Your task to perform on an android device: Open wifi settings Image 0: 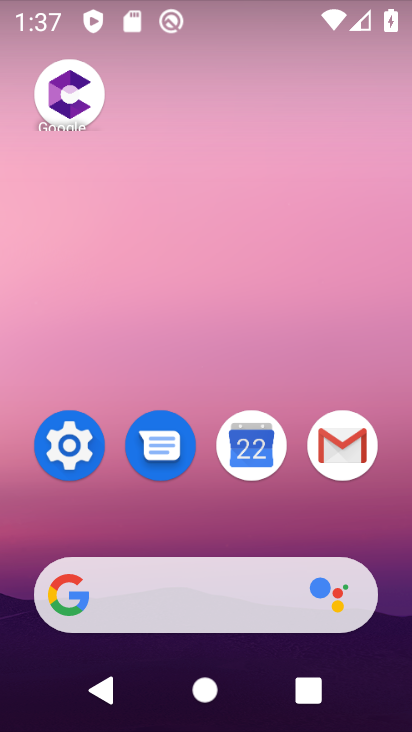
Step 0: drag from (33, 327) to (409, 371)
Your task to perform on an android device: Open wifi settings Image 1: 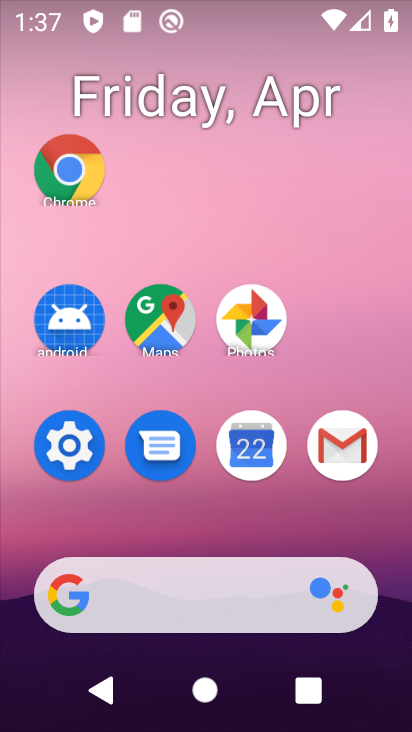
Step 1: click (68, 449)
Your task to perform on an android device: Open wifi settings Image 2: 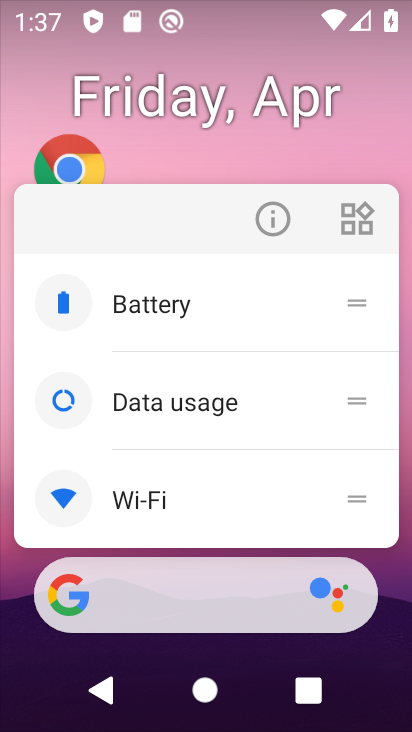
Step 2: click (36, 568)
Your task to perform on an android device: Open wifi settings Image 3: 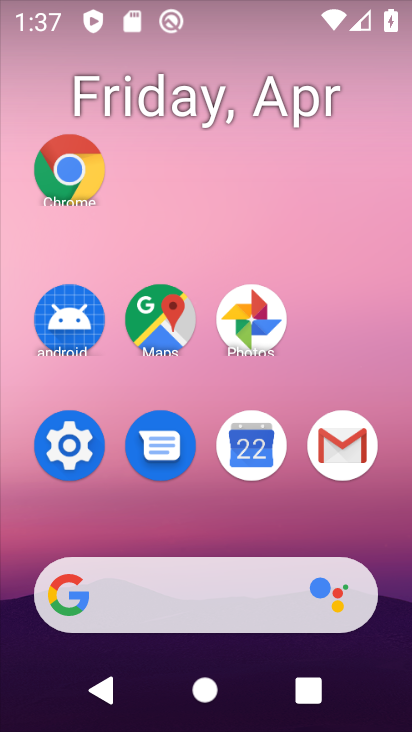
Step 3: click (65, 462)
Your task to perform on an android device: Open wifi settings Image 4: 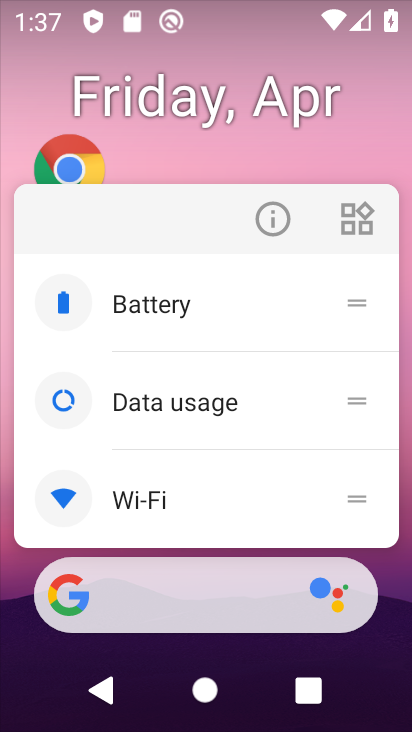
Step 4: click (26, 569)
Your task to perform on an android device: Open wifi settings Image 5: 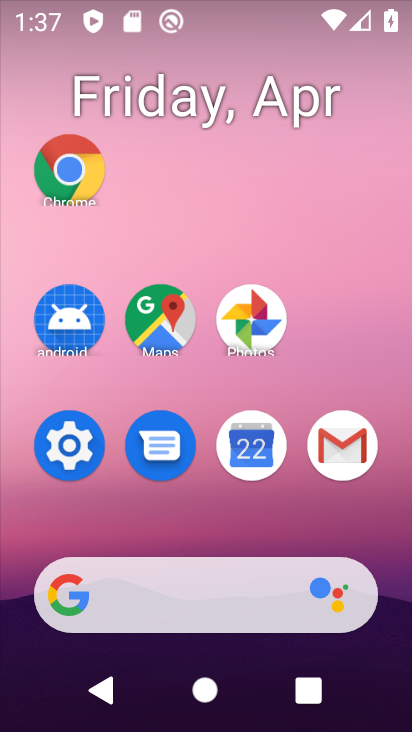
Step 5: click (74, 443)
Your task to perform on an android device: Open wifi settings Image 6: 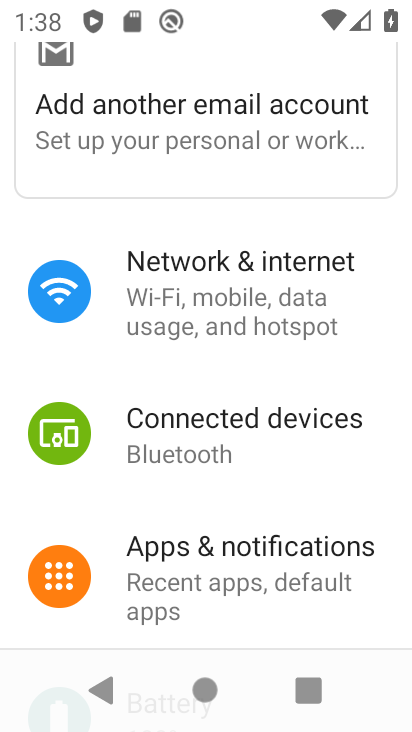
Step 6: click (181, 283)
Your task to perform on an android device: Open wifi settings Image 7: 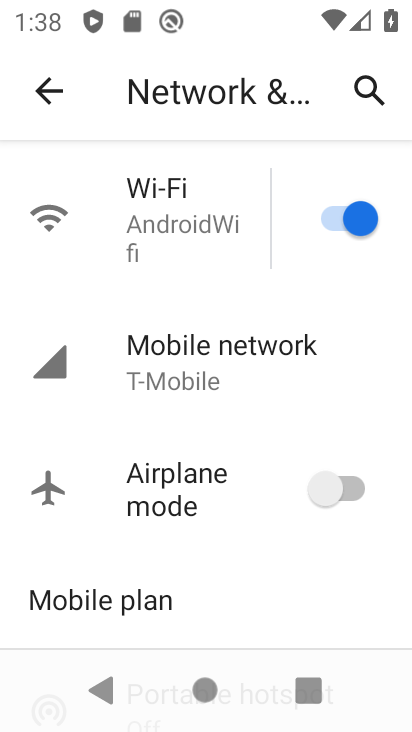
Step 7: click (151, 195)
Your task to perform on an android device: Open wifi settings Image 8: 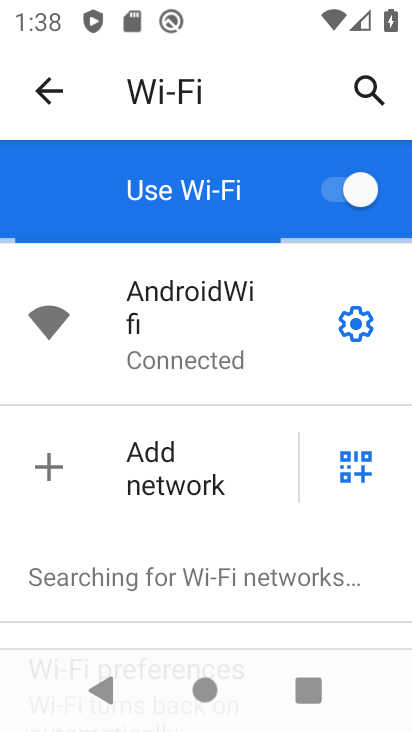
Step 8: task complete